Your task to perform on an android device: toggle location history Image 0: 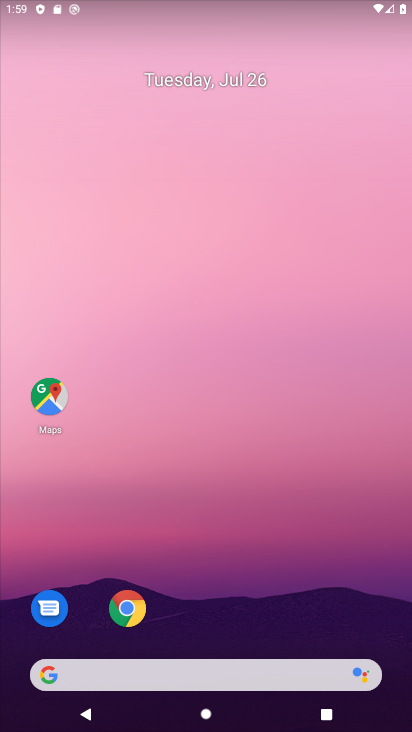
Step 0: drag from (322, 569) to (297, 283)
Your task to perform on an android device: toggle location history Image 1: 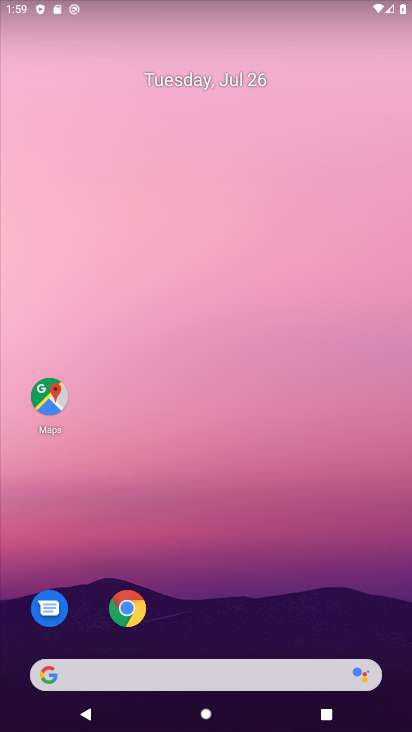
Step 1: drag from (238, 577) to (222, 77)
Your task to perform on an android device: toggle location history Image 2: 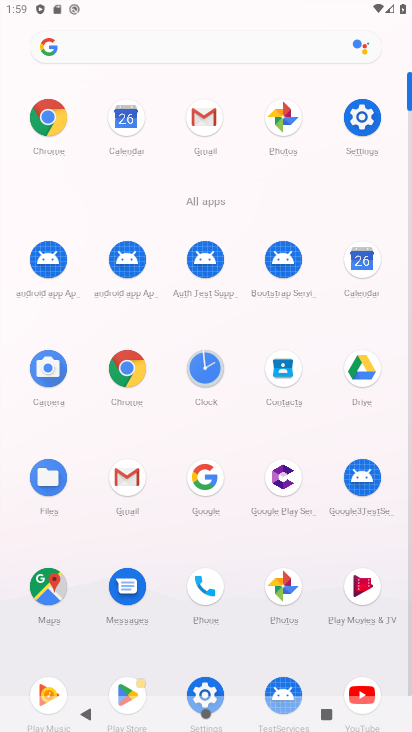
Step 2: click (350, 114)
Your task to perform on an android device: toggle location history Image 3: 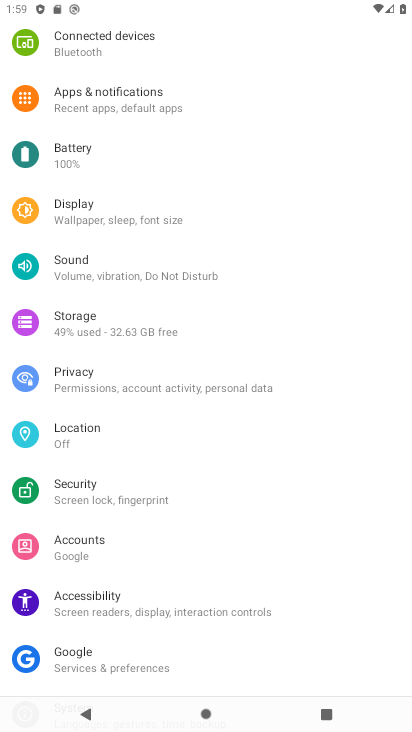
Step 3: click (68, 434)
Your task to perform on an android device: toggle location history Image 4: 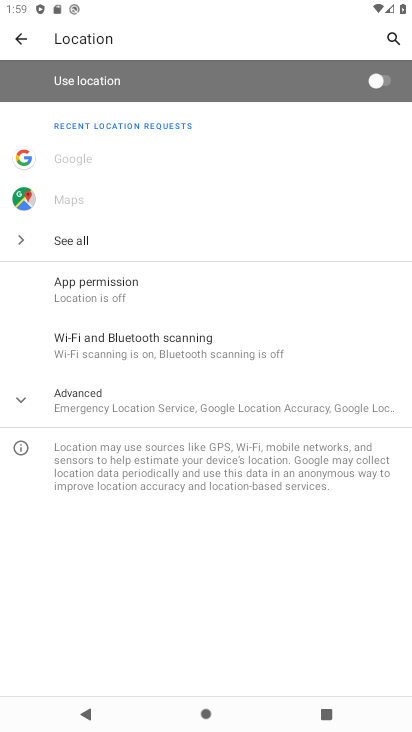
Step 4: click (381, 82)
Your task to perform on an android device: toggle location history Image 5: 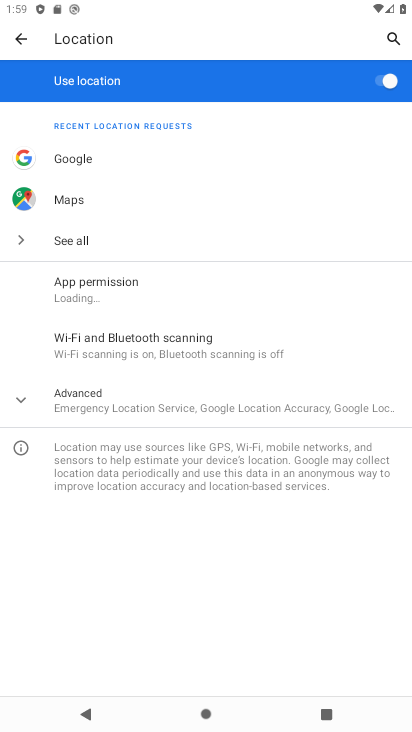
Step 5: task complete